Your task to perform on an android device: turn off sleep mode Image 0: 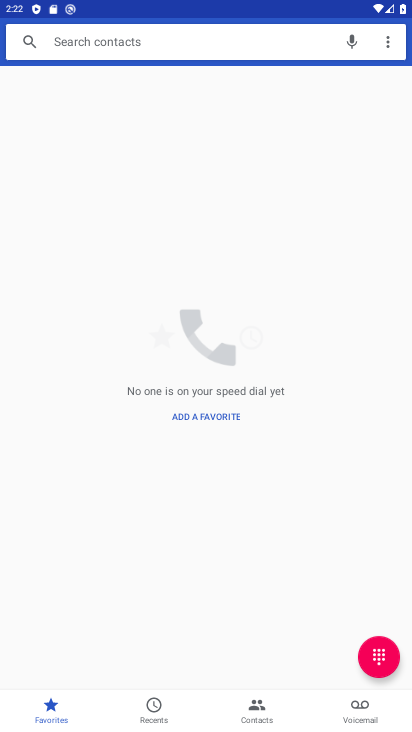
Step 0: press home button
Your task to perform on an android device: turn off sleep mode Image 1: 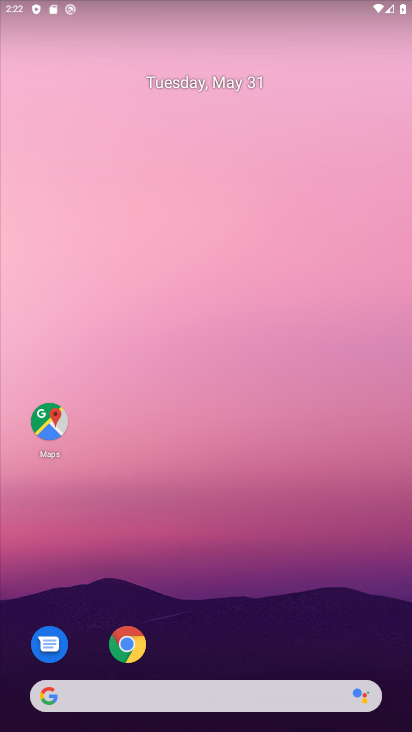
Step 1: drag from (294, 599) to (295, 104)
Your task to perform on an android device: turn off sleep mode Image 2: 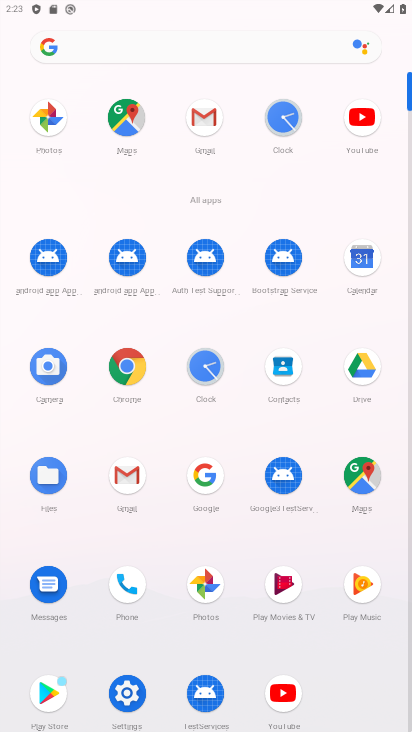
Step 2: click (127, 691)
Your task to perform on an android device: turn off sleep mode Image 3: 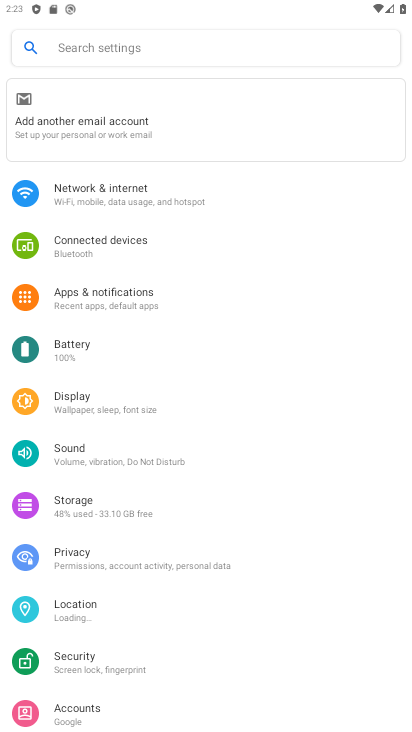
Step 3: click (84, 396)
Your task to perform on an android device: turn off sleep mode Image 4: 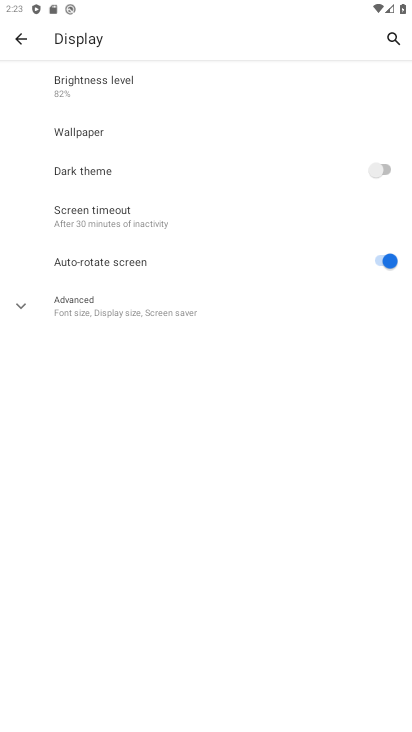
Step 4: task complete